Your task to perform on an android device: Find coffee shops on Maps Image 0: 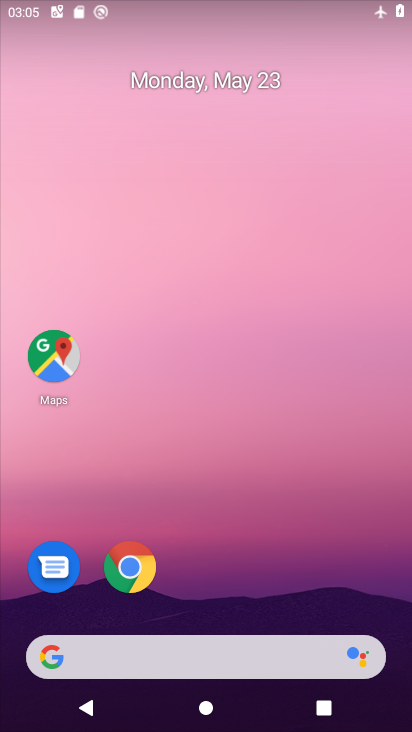
Step 0: drag from (242, 605) to (194, 118)
Your task to perform on an android device: Find coffee shops on Maps Image 1: 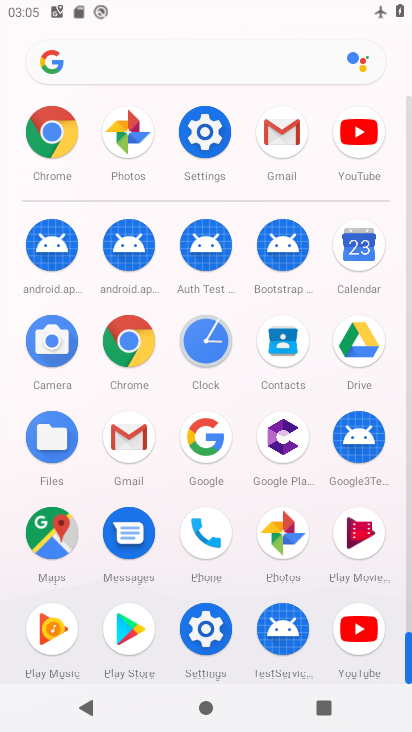
Step 1: click (30, 537)
Your task to perform on an android device: Find coffee shops on Maps Image 2: 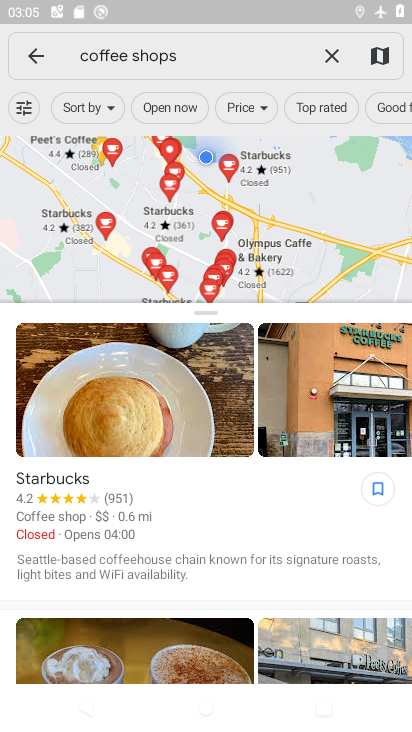
Step 2: click (21, 56)
Your task to perform on an android device: Find coffee shops on Maps Image 3: 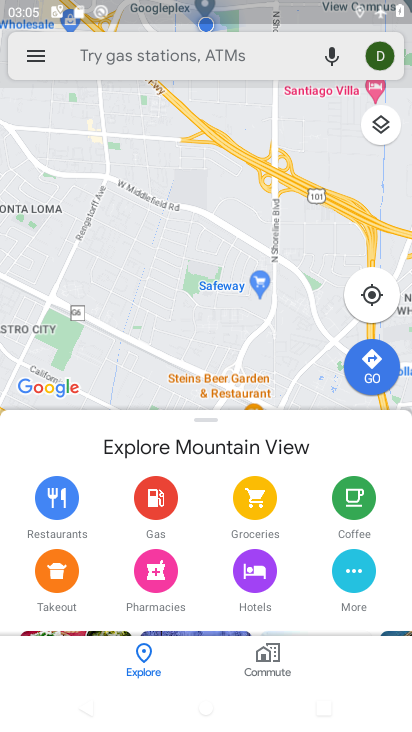
Step 3: click (135, 71)
Your task to perform on an android device: Find coffee shops on Maps Image 4: 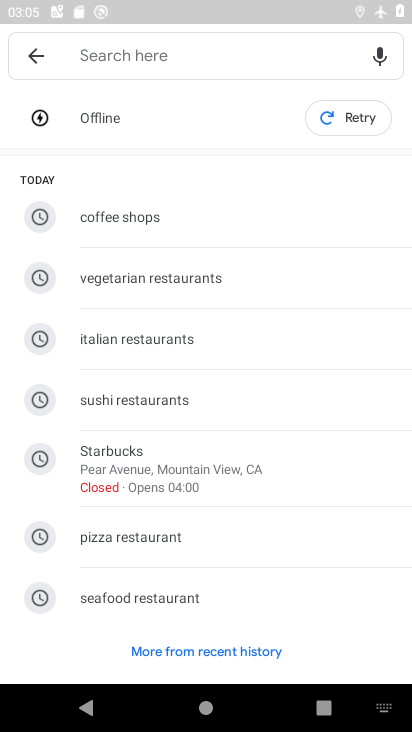
Step 4: click (180, 220)
Your task to perform on an android device: Find coffee shops on Maps Image 5: 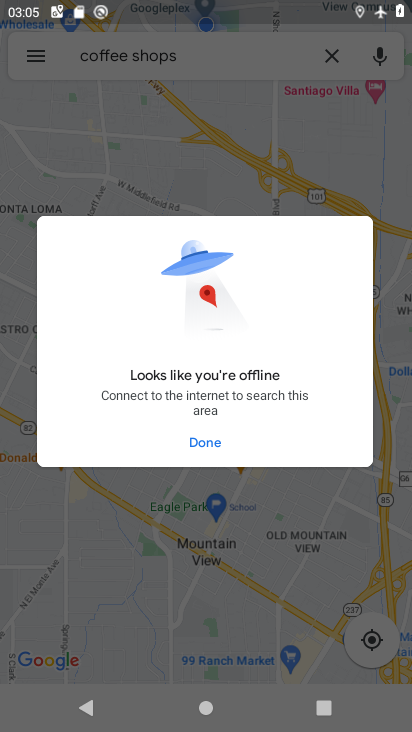
Step 5: click (207, 444)
Your task to perform on an android device: Find coffee shops on Maps Image 6: 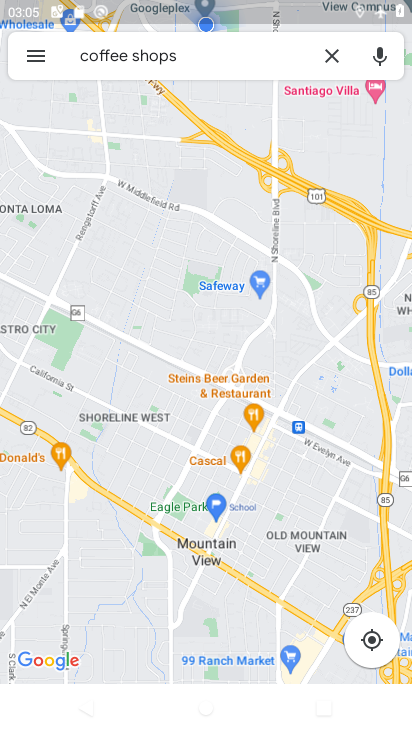
Step 6: task complete